Your task to perform on an android device: Open Google Chrome Image 0: 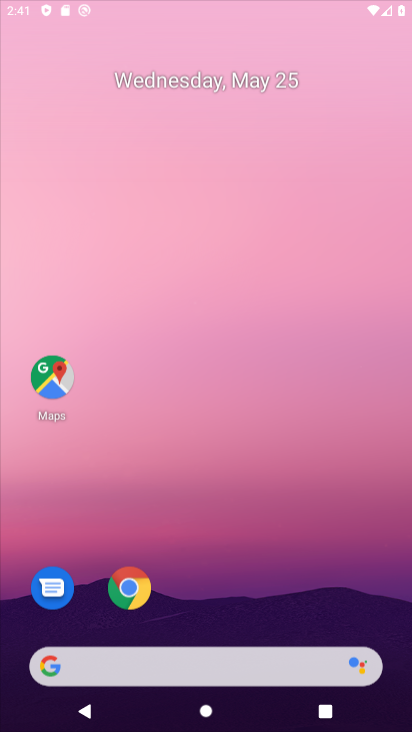
Step 0: press home button
Your task to perform on an android device: Open Google Chrome Image 1: 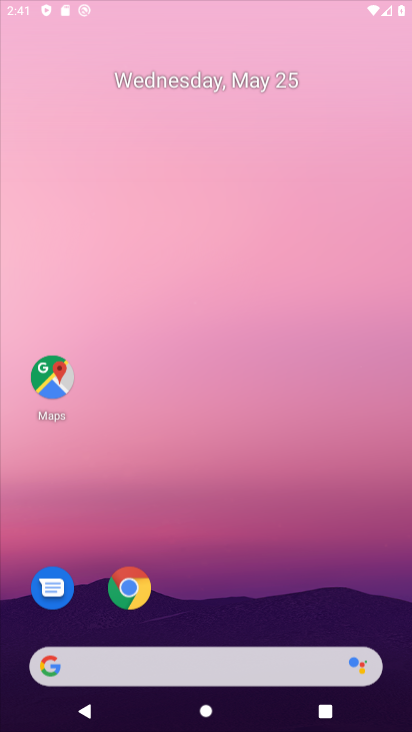
Step 1: click (117, 589)
Your task to perform on an android device: Open Google Chrome Image 2: 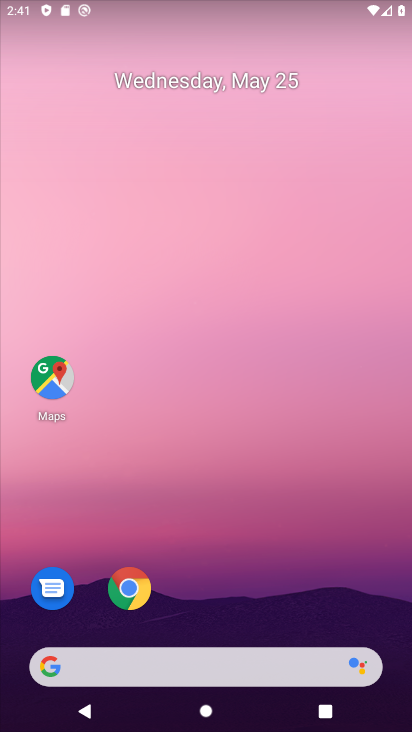
Step 2: click (134, 580)
Your task to perform on an android device: Open Google Chrome Image 3: 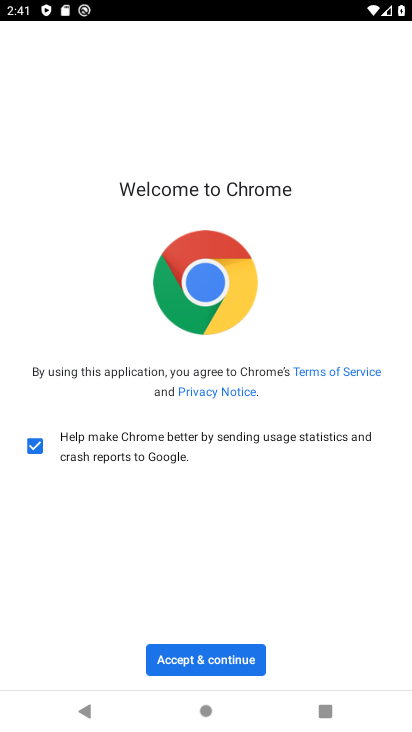
Step 3: click (172, 657)
Your task to perform on an android device: Open Google Chrome Image 4: 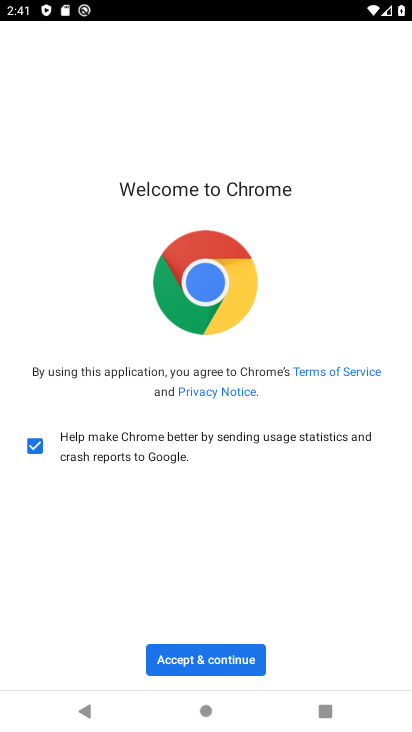
Step 4: click (172, 657)
Your task to perform on an android device: Open Google Chrome Image 5: 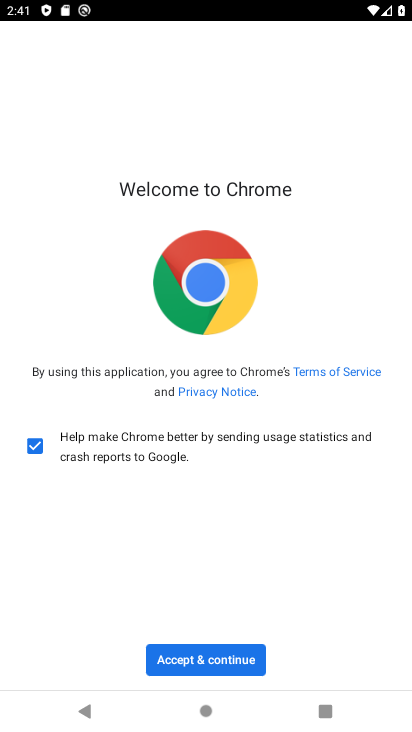
Step 5: click (172, 657)
Your task to perform on an android device: Open Google Chrome Image 6: 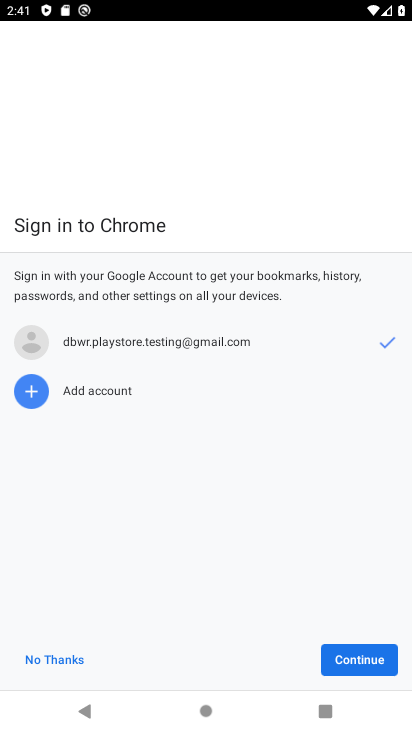
Step 6: click (172, 657)
Your task to perform on an android device: Open Google Chrome Image 7: 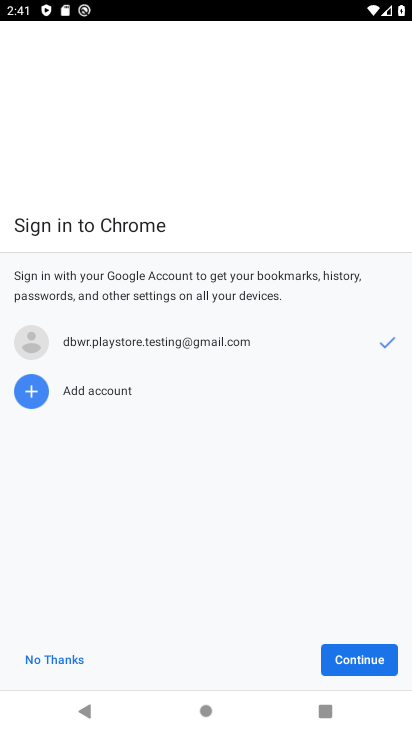
Step 7: click (378, 651)
Your task to perform on an android device: Open Google Chrome Image 8: 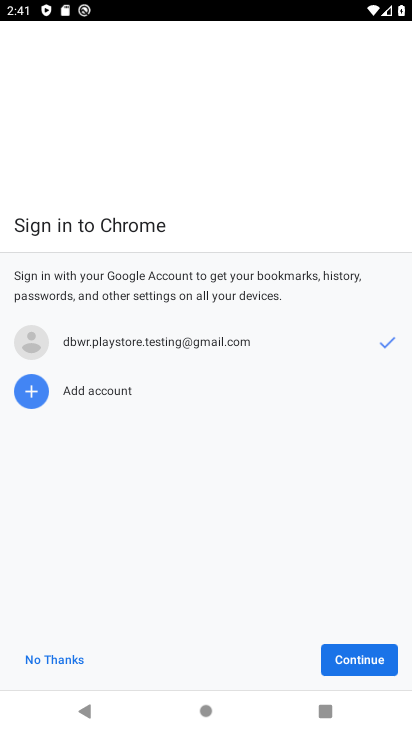
Step 8: click (378, 651)
Your task to perform on an android device: Open Google Chrome Image 9: 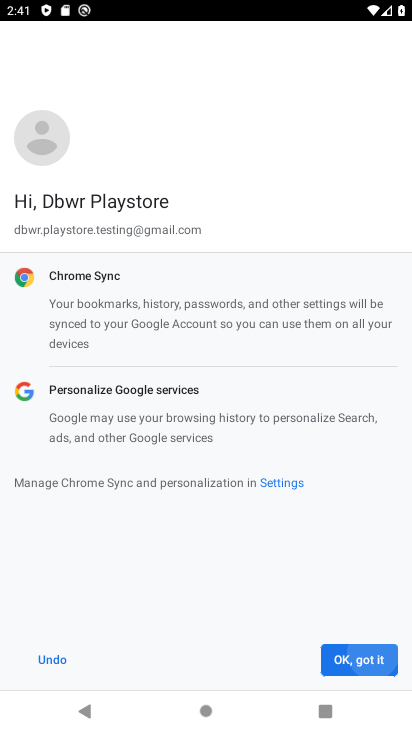
Step 9: click (378, 651)
Your task to perform on an android device: Open Google Chrome Image 10: 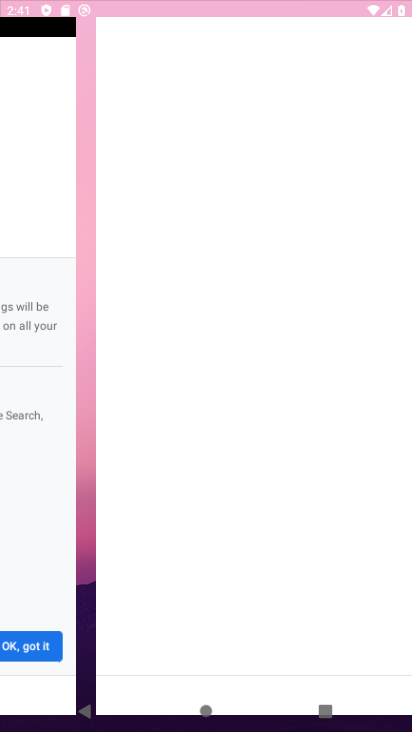
Step 10: click (378, 651)
Your task to perform on an android device: Open Google Chrome Image 11: 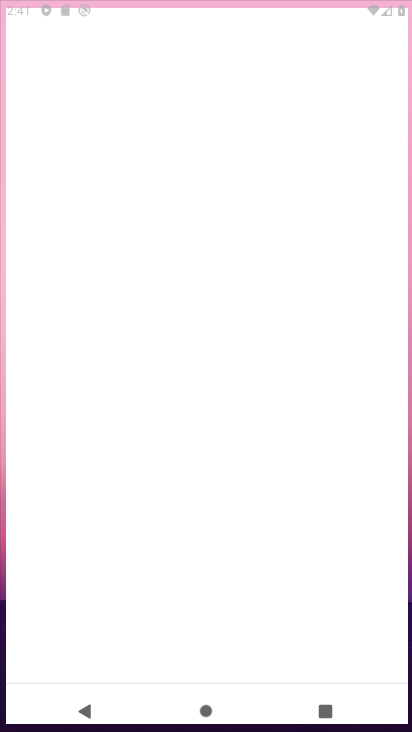
Step 11: click (378, 651)
Your task to perform on an android device: Open Google Chrome Image 12: 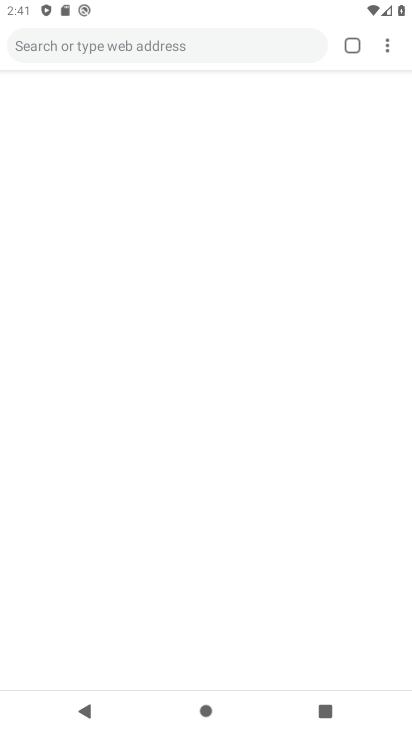
Step 12: click (378, 651)
Your task to perform on an android device: Open Google Chrome Image 13: 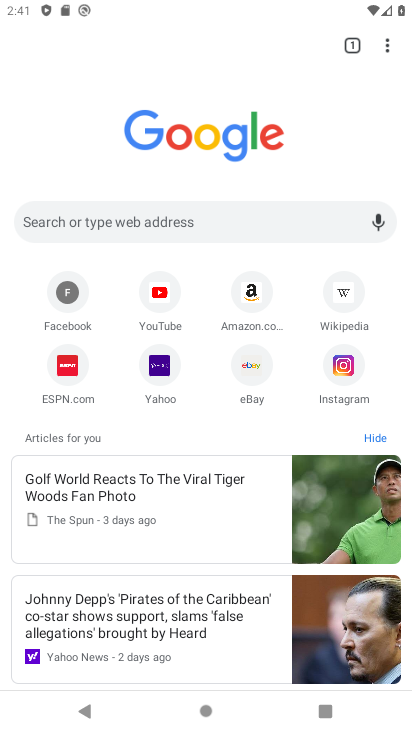
Step 13: task complete